Your task to perform on an android device: Go to Maps Image 0: 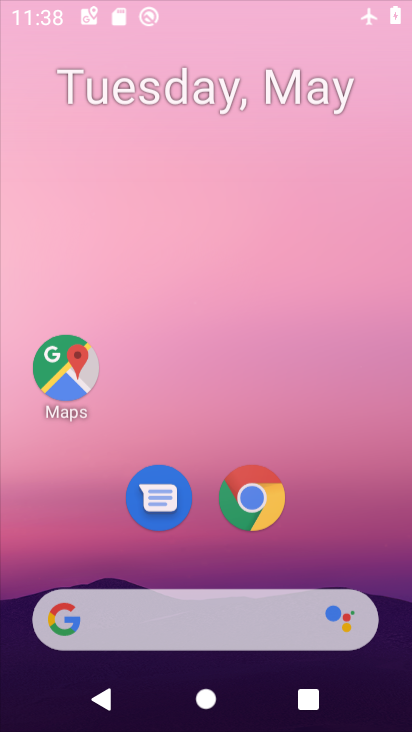
Step 0: click (155, 215)
Your task to perform on an android device: Go to Maps Image 1: 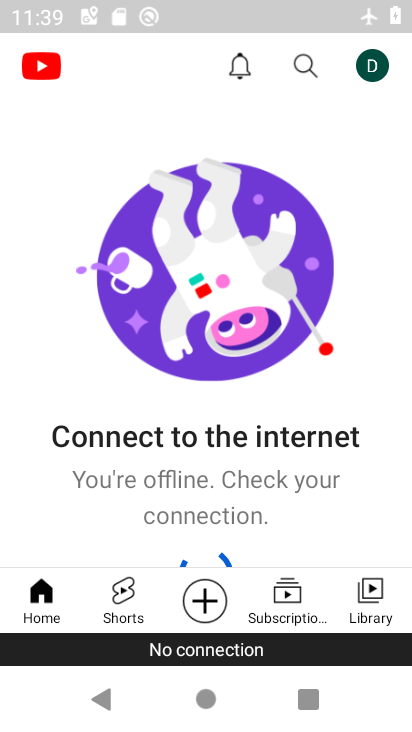
Step 1: press back button
Your task to perform on an android device: Go to Maps Image 2: 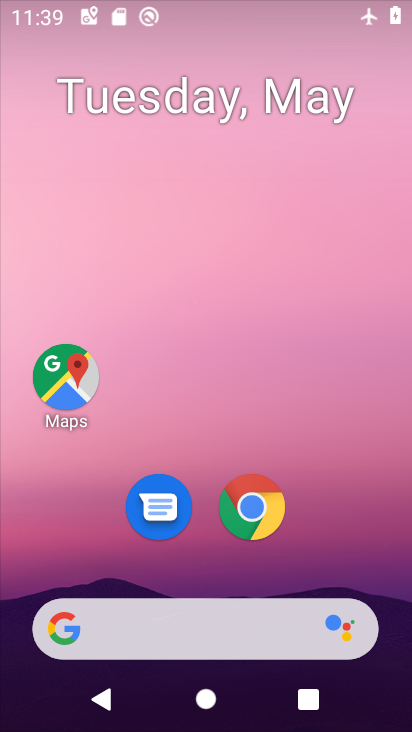
Step 2: press home button
Your task to perform on an android device: Go to Maps Image 3: 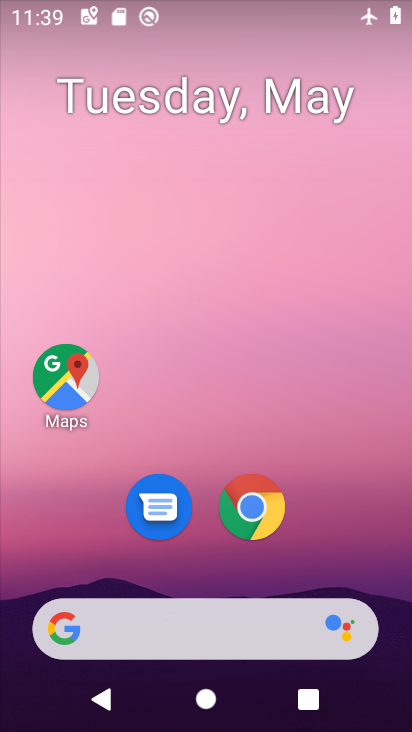
Step 3: drag from (257, 689) to (228, 143)
Your task to perform on an android device: Go to Maps Image 4: 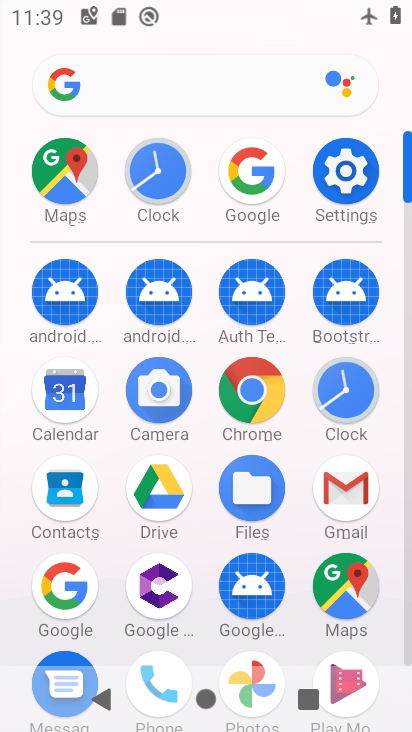
Step 4: click (339, 576)
Your task to perform on an android device: Go to Maps Image 5: 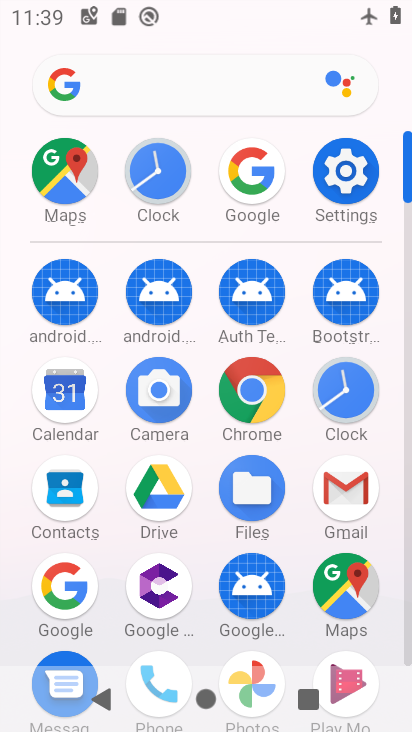
Step 5: click (340, 576)
Your task to perform on an android device: Go to Maps Image 6: 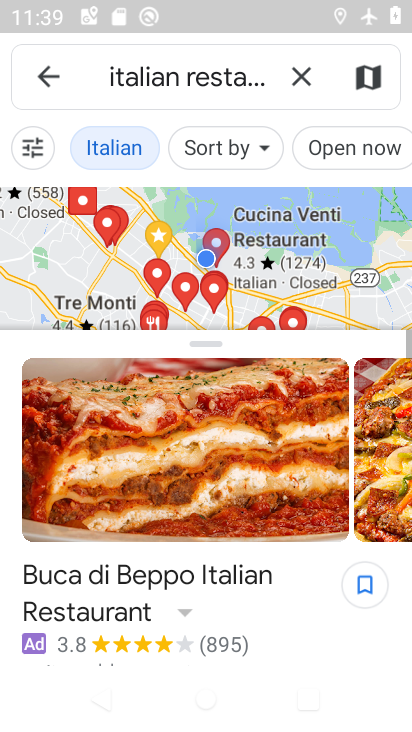
Step 6: click (304, 67)
Your task to perform on an android device: Go to Maps Image 7: 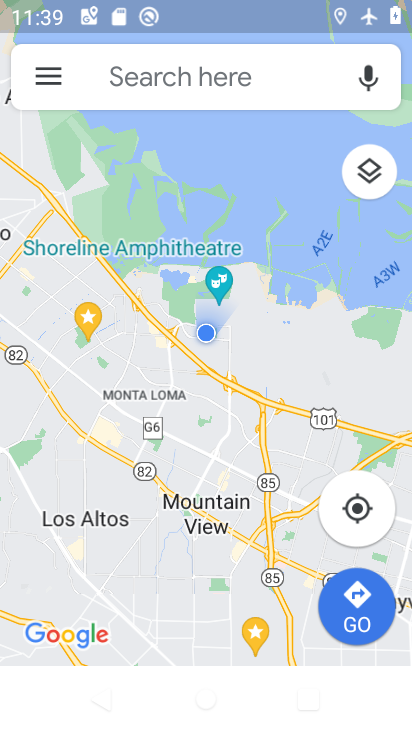
Step 7: task complete